Your task to perform on an android device: set the stopwatch Image 0: 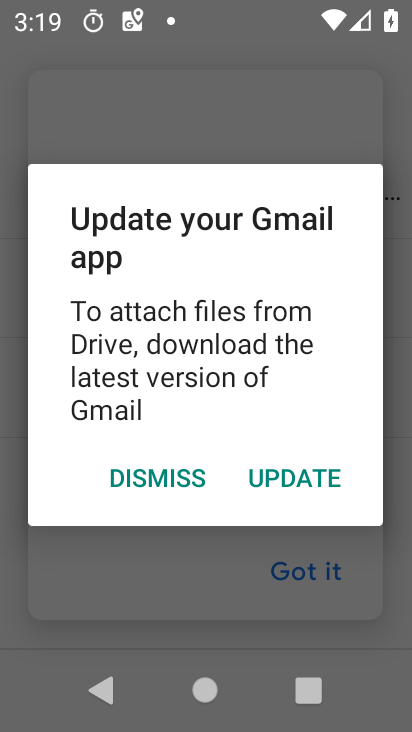
Step 0: press home button
Your task to perform on an android device: set the stopwatch Image 1: 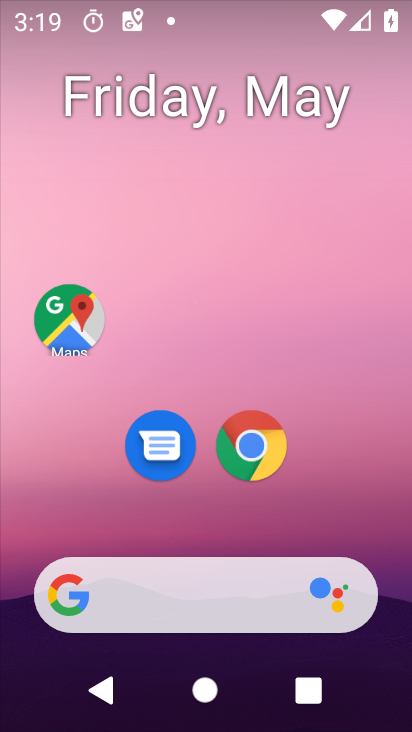
Step 1: drag from (127, 604) to (151, 8)
Your task to perform on an android device: set the stopwatch Image 2: 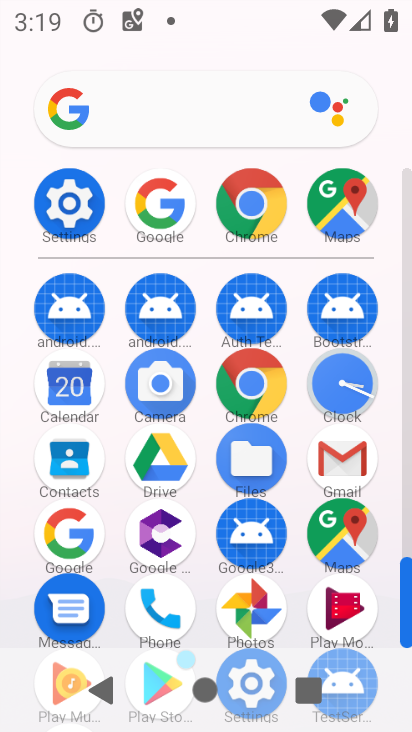
Step 2: click (329, 405)
Your task to perform on an android device: set the stopwatch Image 3: 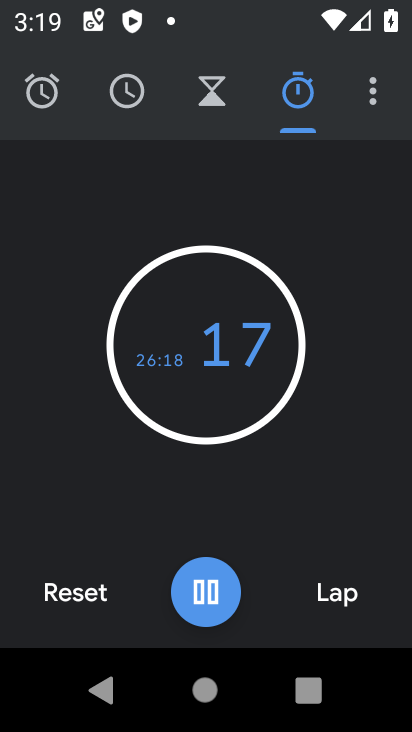
Step 3: task complete